Your task to perform on an android device: turn on location history Image 0: 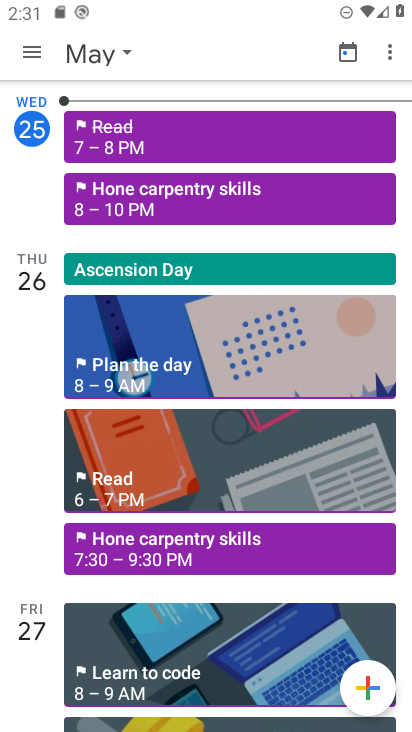
Step 0: press home button
Your task to perform on an android device: turn on location history Image 1: 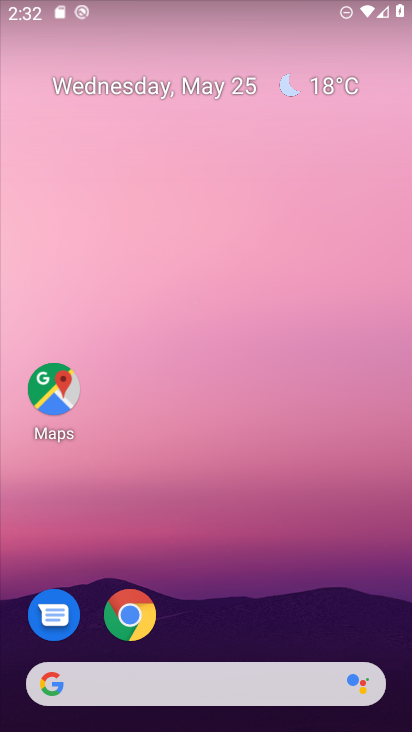
Step 1: drag from (237, 579) to (200, 0)
Your task to perform on an android device: turn on location history Image 2: 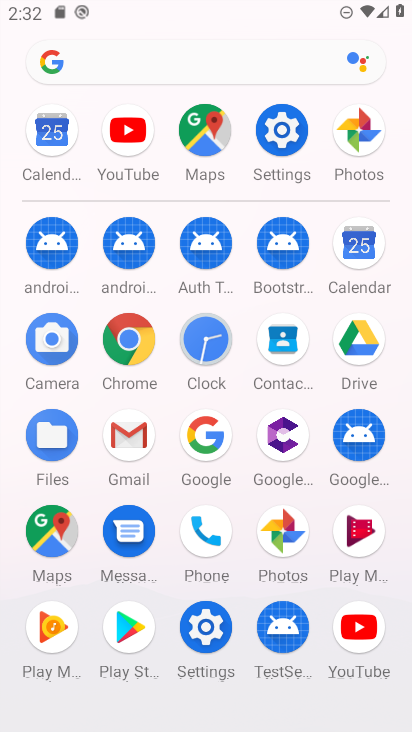
Step 2: click (284, 132)
Your task to perform on an android device: turn on location history Image 3: 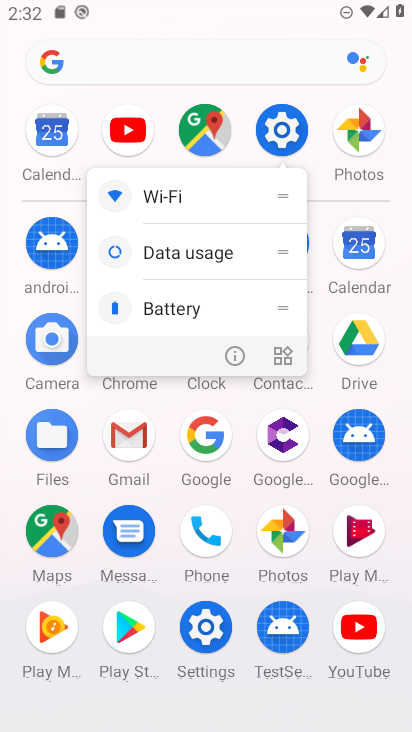
Step 3: click (284, 131)
Your task to perform on an android device: turn on location history Image 4: 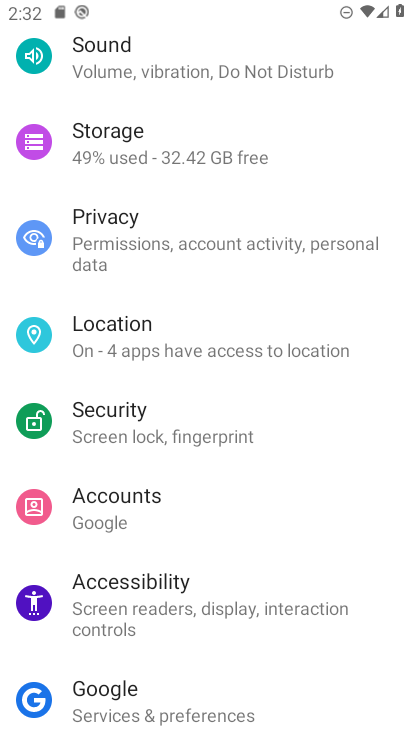
Step 4: click (254, 341)
Your task to perform on an android device: turn on location history Image 5: 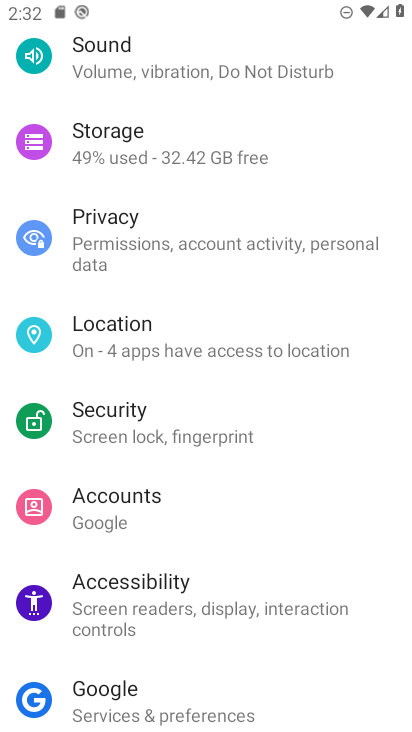
Step 5: click (252, 348)
Your task to perform on an android device: turn on location history Image 6: 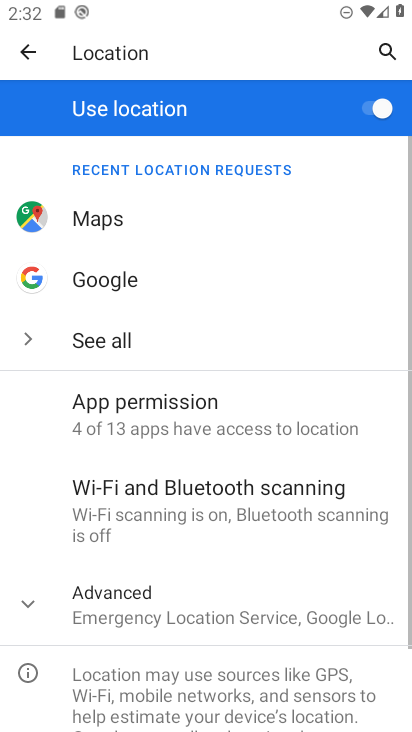
Step 6: click (27, 604)
Your task to perform on an android device: turn on location history Image 7: 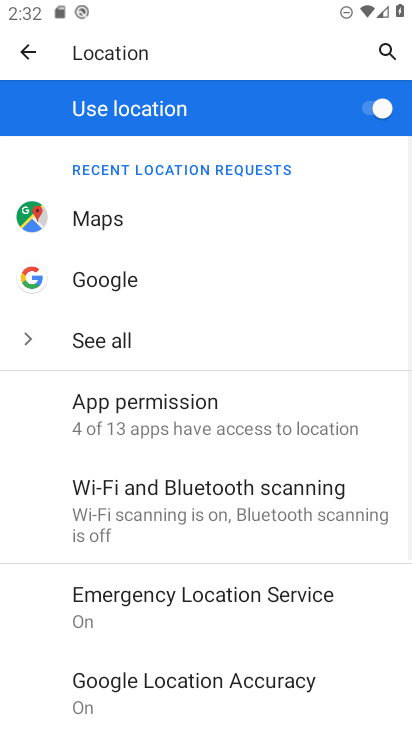
Step 7: task complete